Your task to perform on an android device: check google app version Image 0: 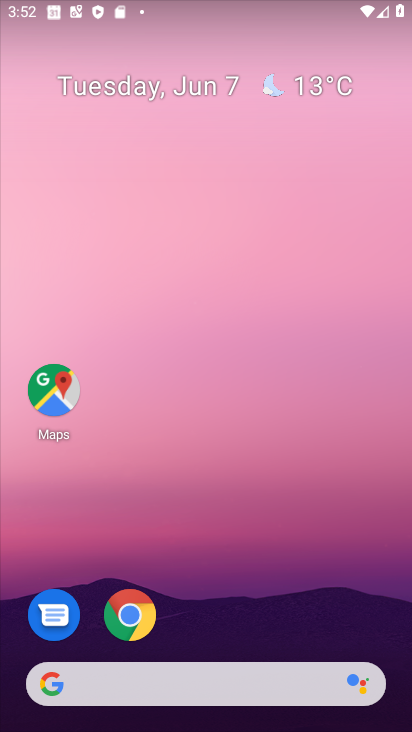
Step 0: click (176, 677)
Your task to perform on an android device: check google app version Image 1: 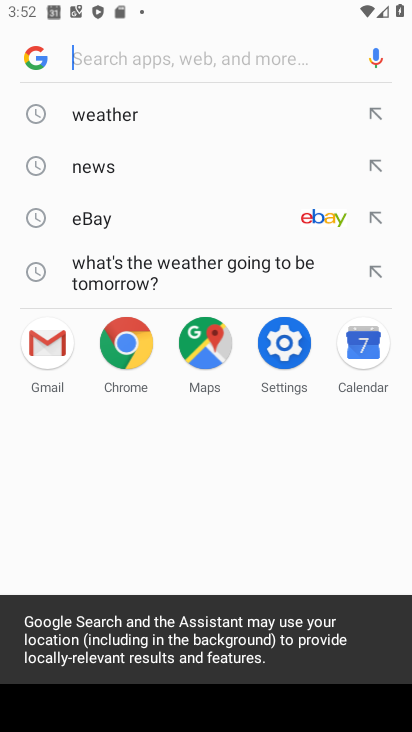
Step 1: click (39, 51)
Your task to perform on an android device: check google app version Image 2: 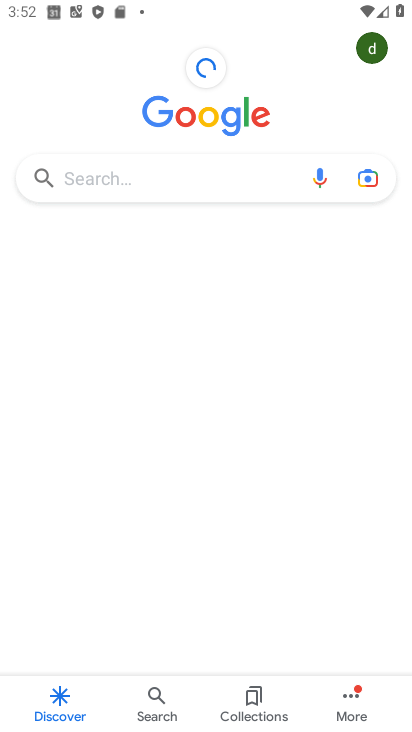
Step 2: click (345, 702)
Your task to perform on an android device: check google app version Image 3: 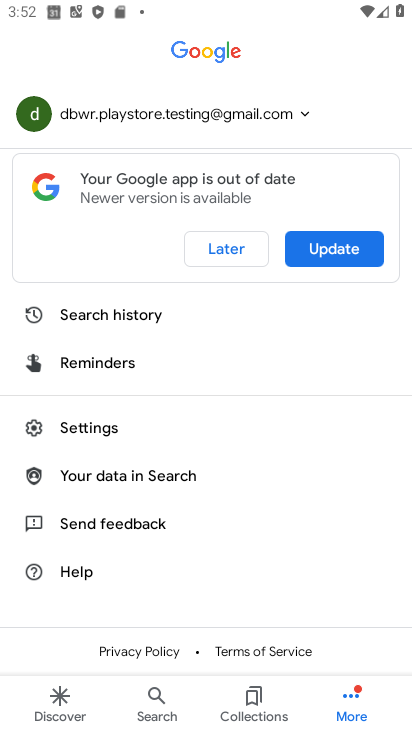
Step 3: click (87, 433)
Your task to perform on an android device: check google app version Image 4: 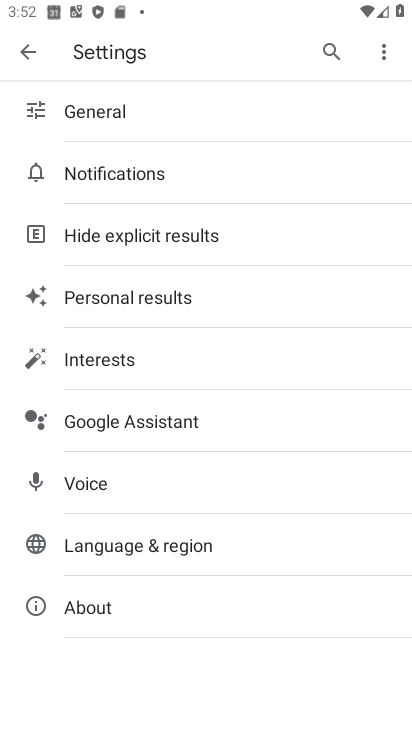
Step 4: click (132, 605)
Your task to perform on an android device: check google app version Image 5: 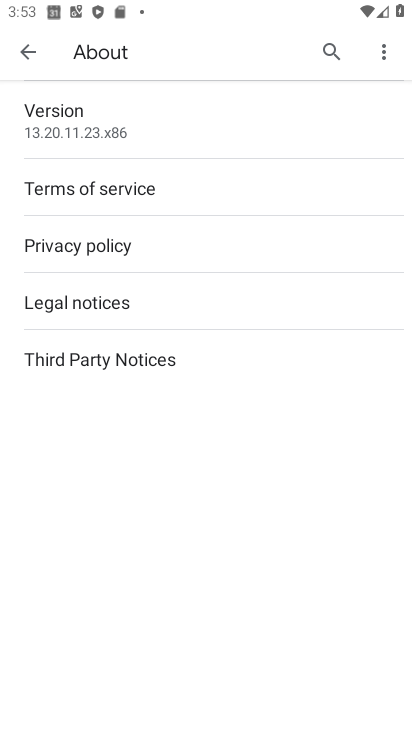
Step 5: task complete